Your task to perform on an android device: delete the emails in spam in the gmail app Image 0: 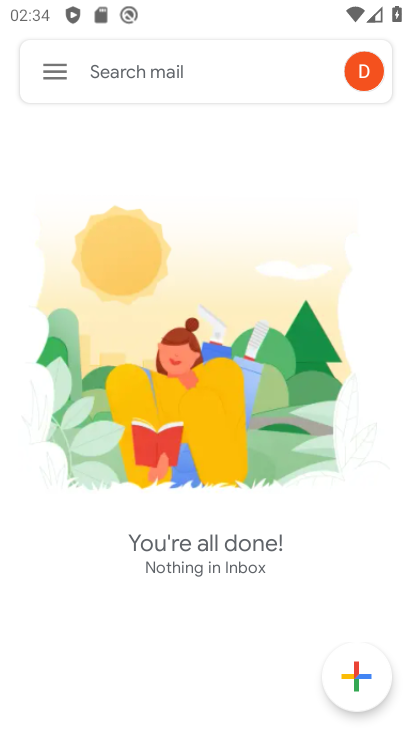
Step 0: press home button
Your task to perform on an android device: delete the emails in spam in the gmail app Image 1: 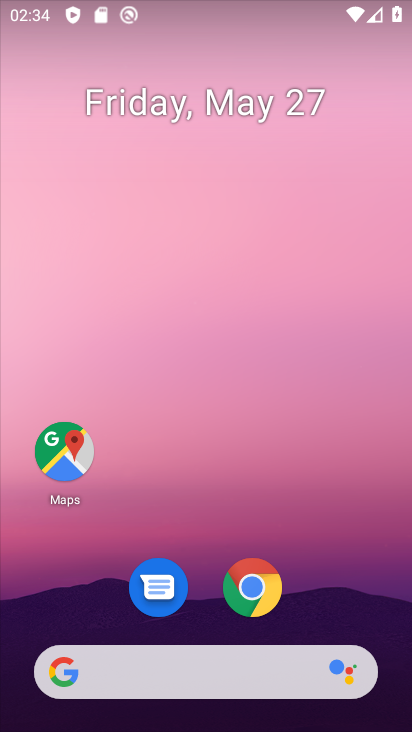
Step 1: drag from (305, 623) to (261, 272)
Your task to perform on an android device: delete the emails in spam in the gmail app Image 2: 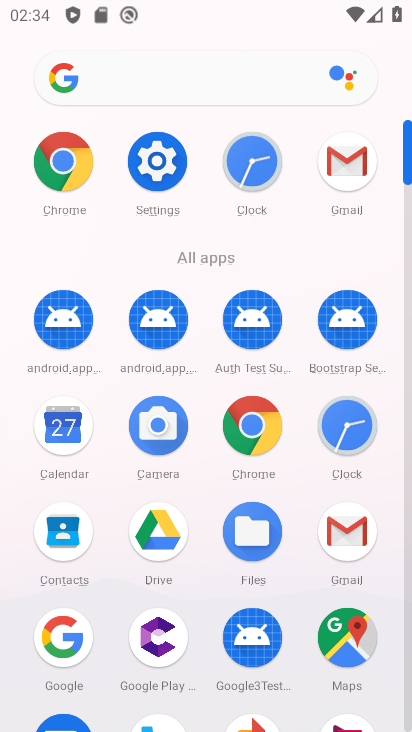
Step 2: click (348, 167)
Your task to perform on an android device: delete the emails in spam in the gmail app Image 3: 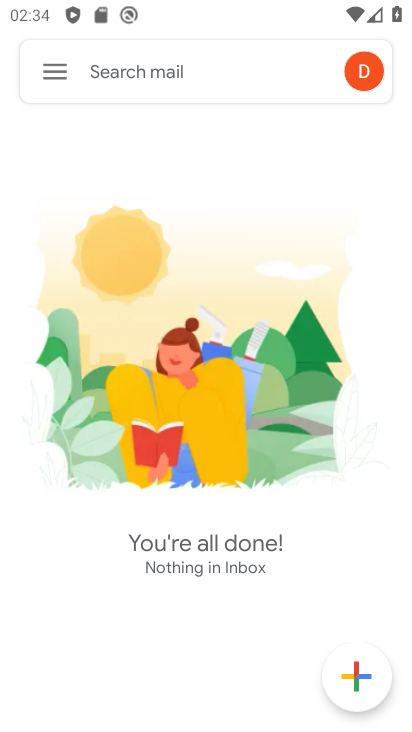
Step 3: click (39, 78)
Your task to perform on an android device: delete the emails in spam in the gmail app Image 4: 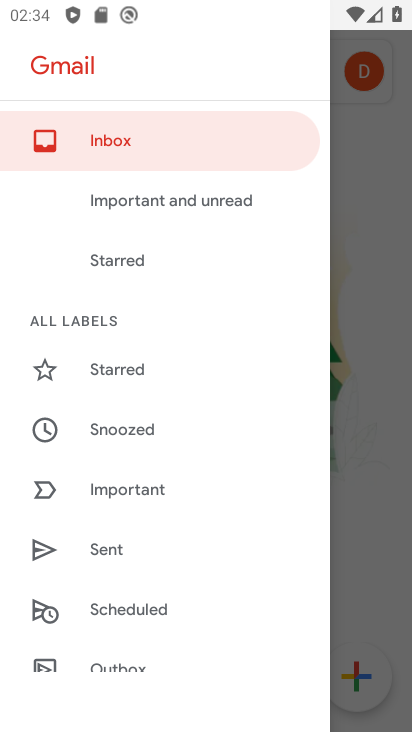
Step 4: drag from (243, 604) to (236, 262)
Your task to perform on an android device: delete the emails in spam in the gmail app Image 5: 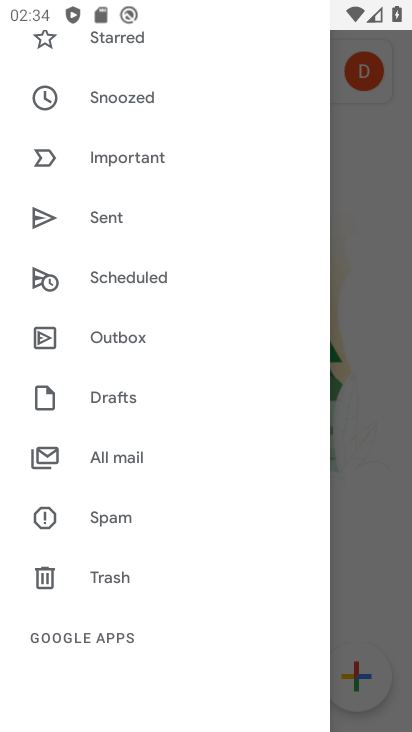
Step 5: click (107, 521)
Your task to perform on an android device: delete the emails in spam in the gmail app Image 6: 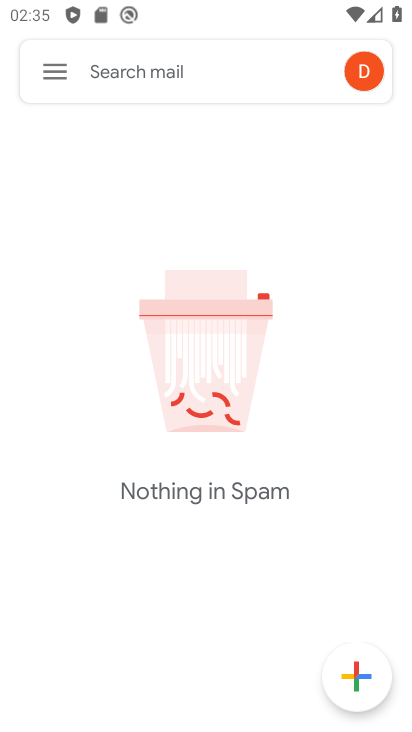
Step 6: task complete